Your task to perform on an android device: Open Wikipedia Image 0: 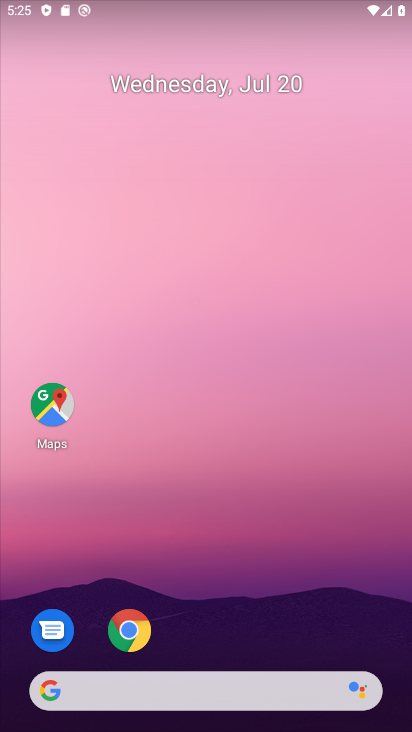
Step 0: drag from (331, 581) to (391, 1)
Your task to perform on an android device: Open Wikipedia Image 1: 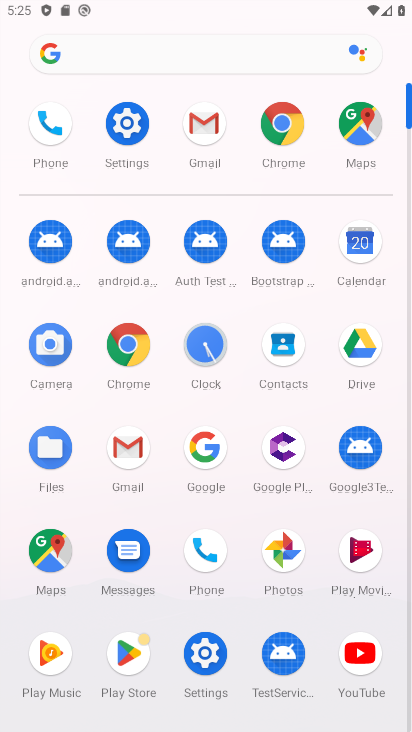
Step 1: click (118, 351)
Your task to perform on an android device: Open Wikipedia Image 2: 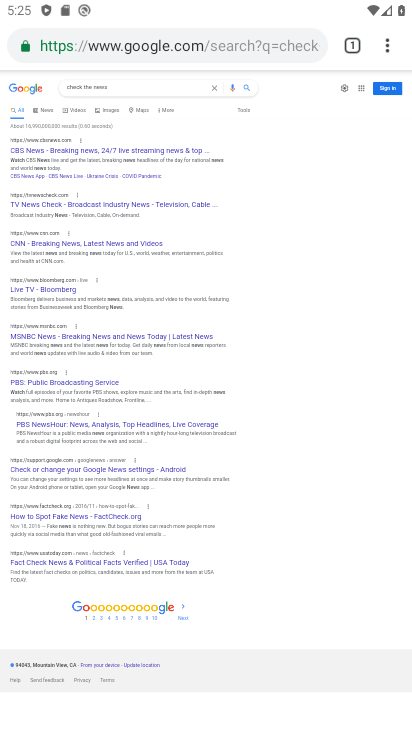
Step 2: drag from (385, 53) to (279, 81)
Your task to perform on an android device: Open Wikipedia Image 3: 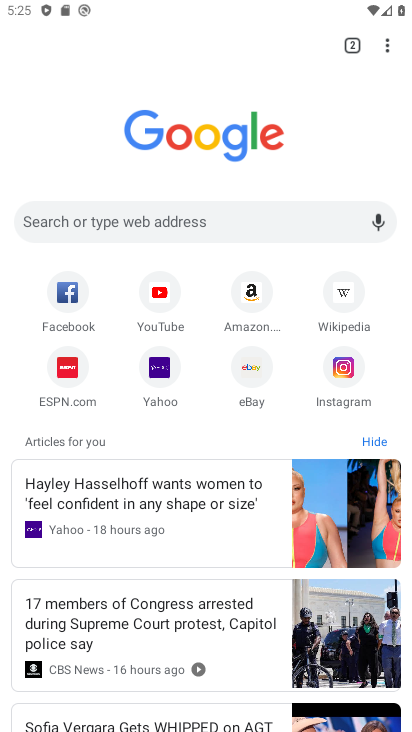
Step 3: click (340, 294)
Your task to perform on an android device: Open Wikipedia Image 4: 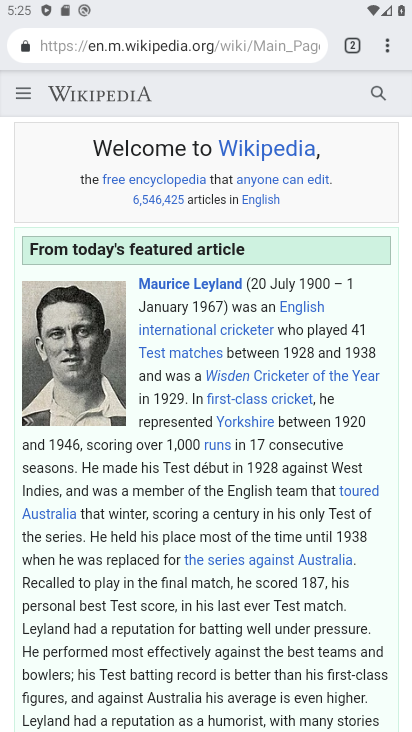
Step 4: task complete